Your task to perform on an android device: change notifications settings Image 0: 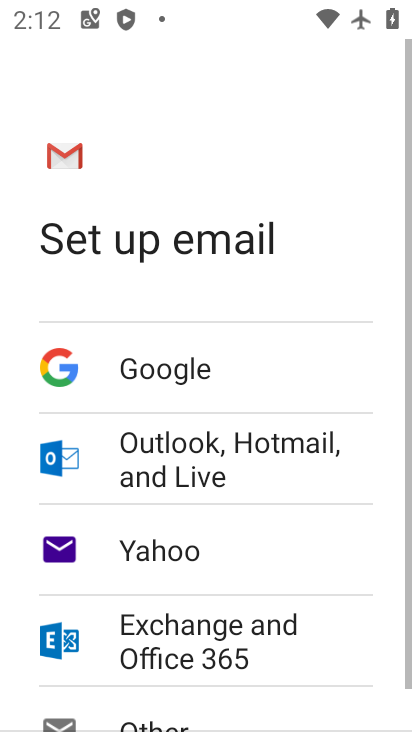
Step 0: drag from (375, 566) to (326, 265)
Your task to perform on an android device: change notifications settings Image 1: 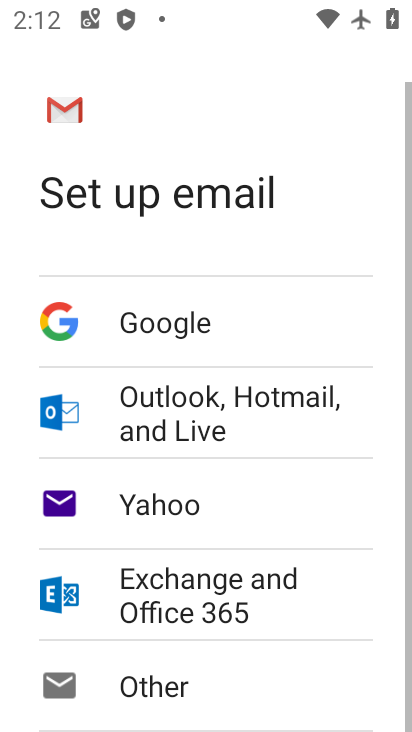
Step 1: press home button
Your task to perform on an android device: change notifications settings Image 2: 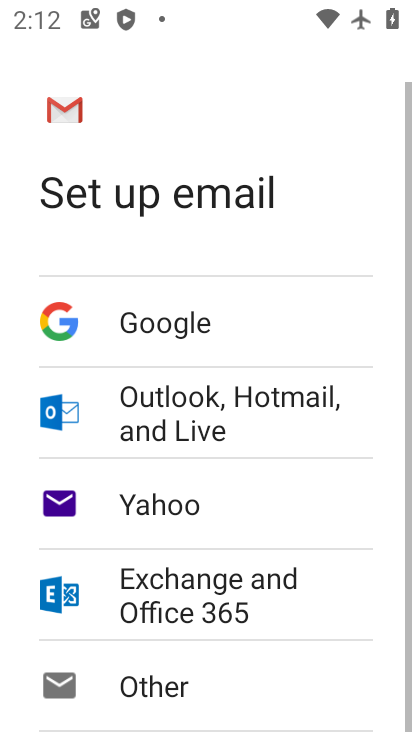
Step 2: press home button
Your task to perform on an android device: change notifications settings Image 3: 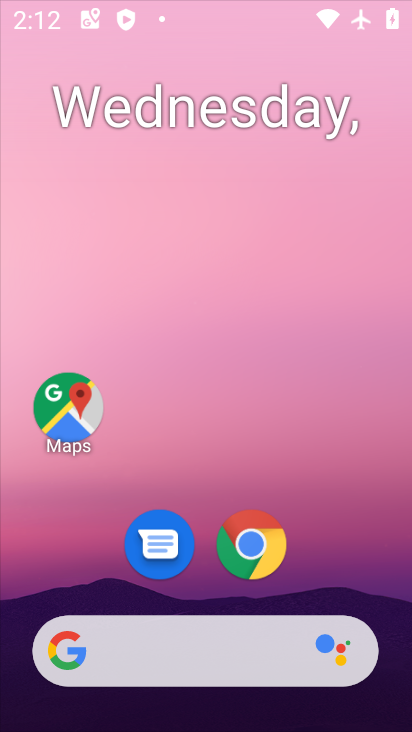
Step 3: press home button
Your task to perform on an android device: change notifications settings Image 4: 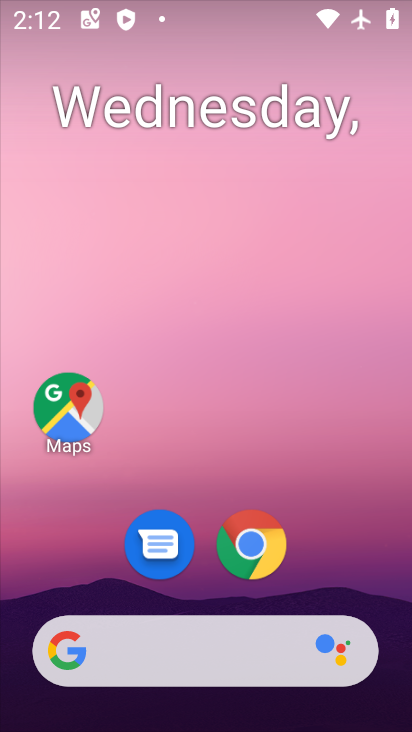
Step 4: press home button
Your task to perform on an android device: change notifications settings Image 5: 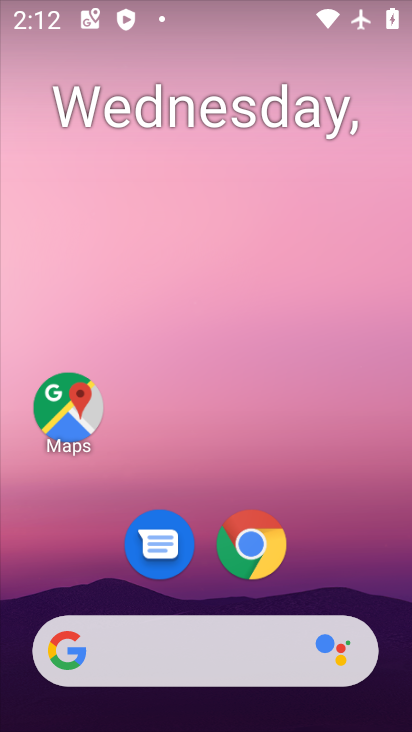
Step 5: drag from (351, 564) to (336, 179)
Your task to perform on an android device: change notifications settings Image 6: 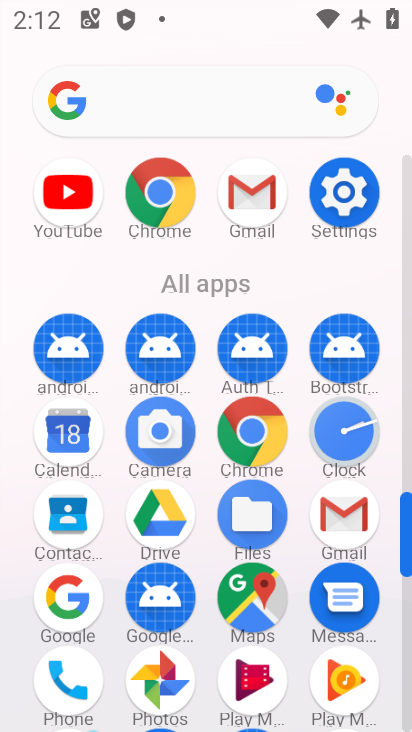
Step 6: click (361, 239)
Your task to perform on an android device: change notifications settings Image 7: 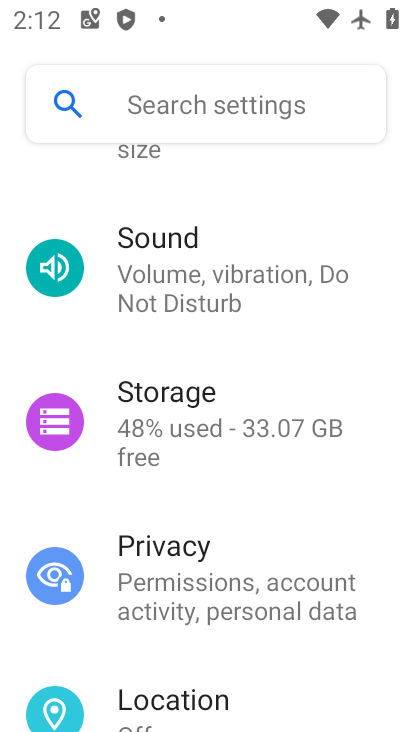
Step 7: drag from (198, 322) to (199, 648)
Your task to perform on an android device: change notifications settings Image 8: 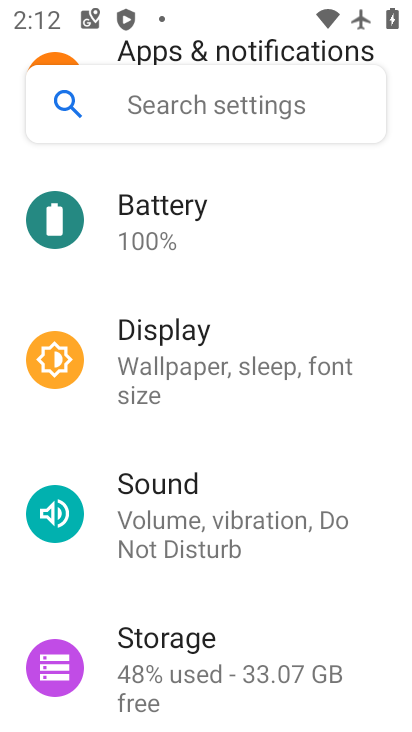
Step 8: drag from (217, 119) to (216, 491)
Your task to perform on an android device: change notifications settings Image 9: 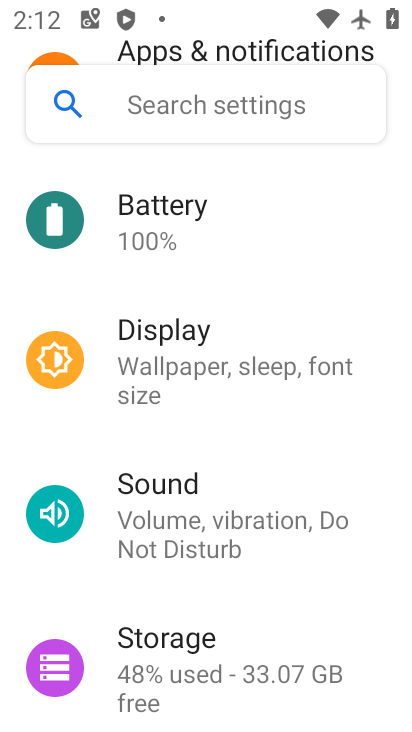
Step 9: drag from (244, 301) to (244, 724)
Your task to perform on an android device: change notifications settings Image 10: 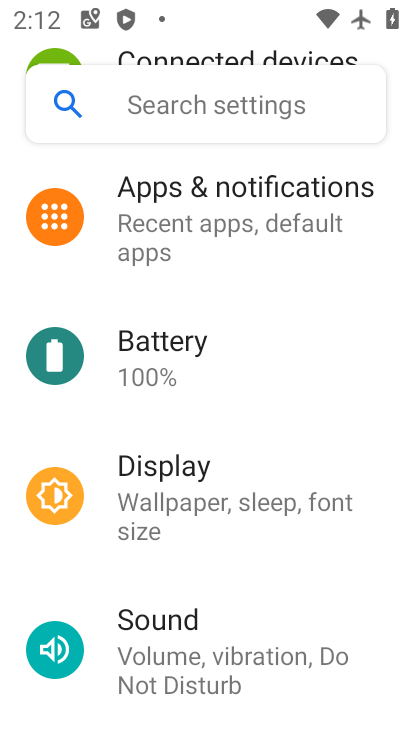
Step 10: drag from (255, 342) to (251, 590)
Your task to perform on an android device: change notifications settings Image 11: 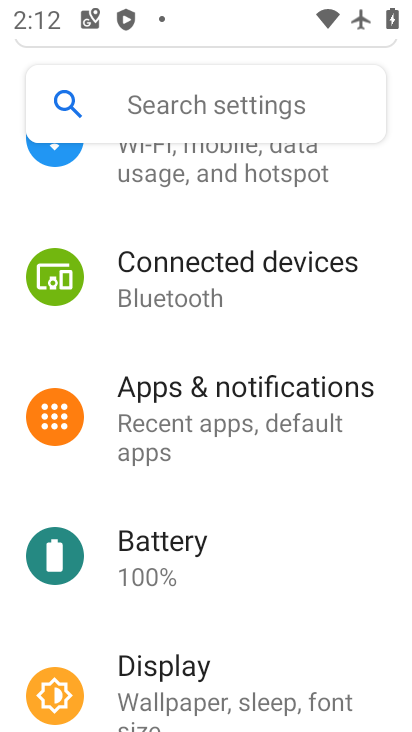
Step 11: click (229, 160)
Your task to perform on an android device: change notifications settings Image 12: 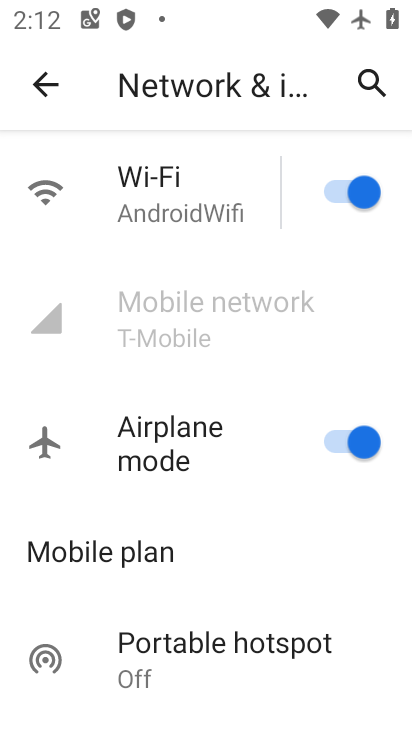
Step 12: drag from (164, 517) to (205, 135)
Your task to perform on an android device: change notifications settings Image 13: 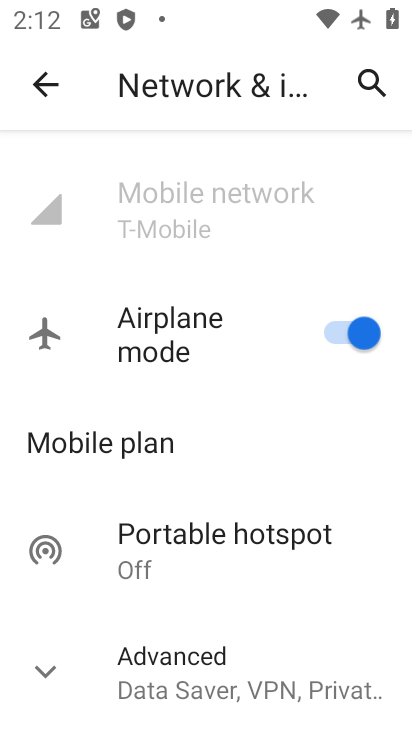
Step 13: click (60, 71)
Your task to perform on an android device: change notifications settings Image 14: 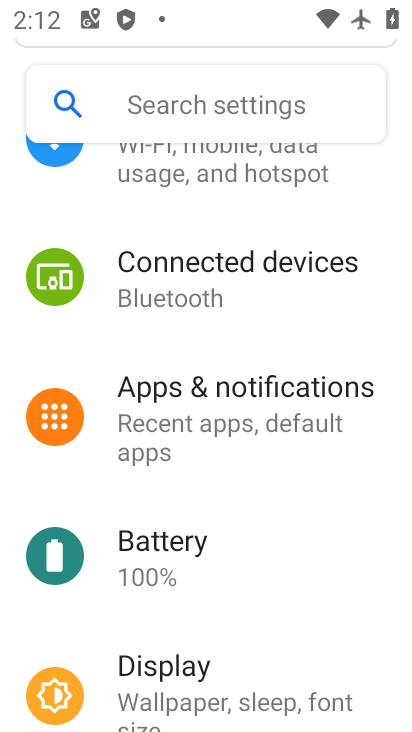
Step 14: click (214, 404)
Your task to perform on an android device: change notifications settings Image 15: 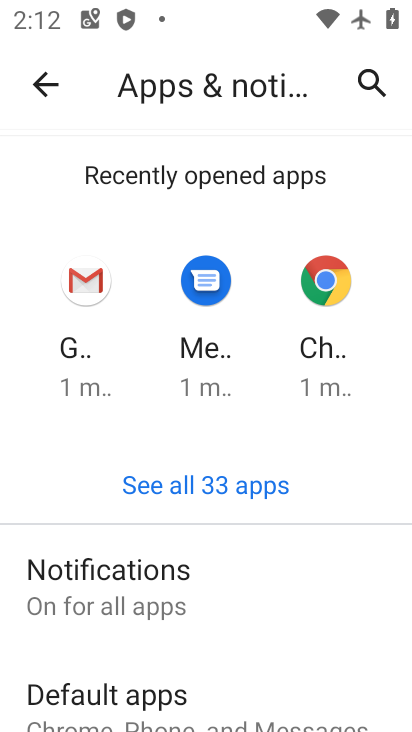
Step 15: task complete